Your task to perform on an android device: turn on the 24-hour format for clock Image 0: 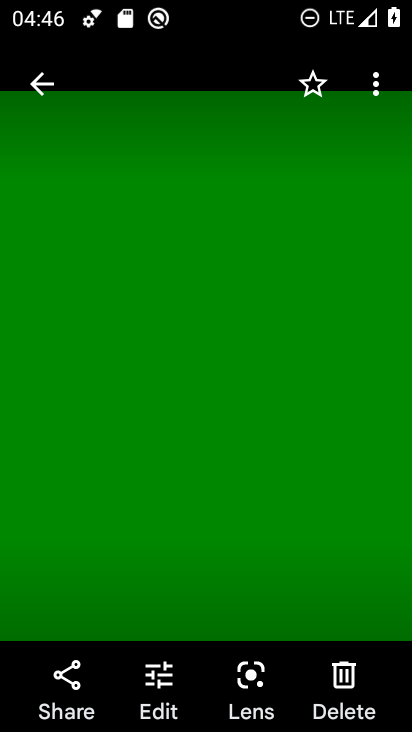
Step 0: press home button
Your task to perform on an android device: turn on the 24-hour format for clock Image 1: 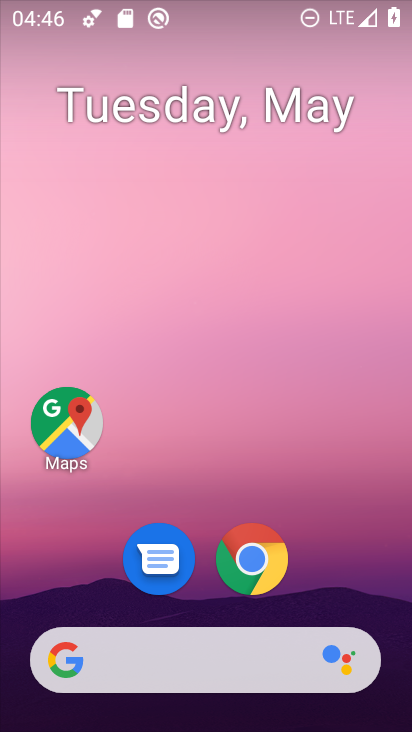
Step 1: drag from (226, 693) to (230, 115)
Your task to perform on an android device: turn on the 24-hour format for clock Image 2: 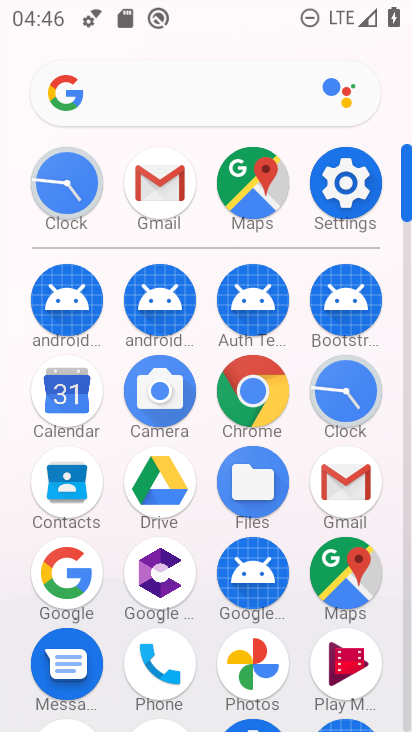
Step 2: click (347, 378)
Your task to perform on an android device: turn on the 24-hour format for clock Image 3: 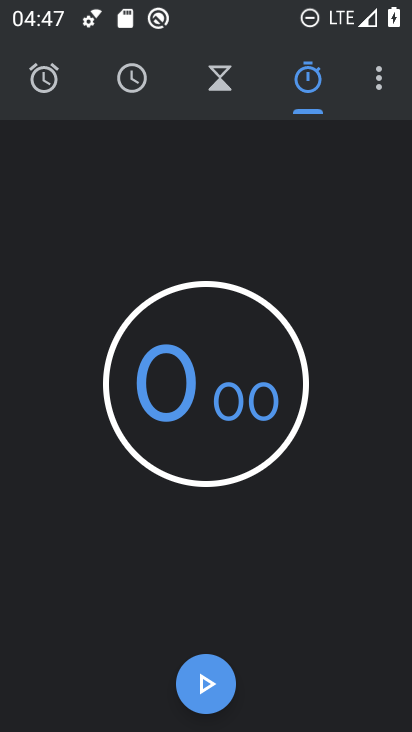
Step 3: click (381, 84)
Your task to perform on an android device: turn on the 24-hour format for clock Image 4: 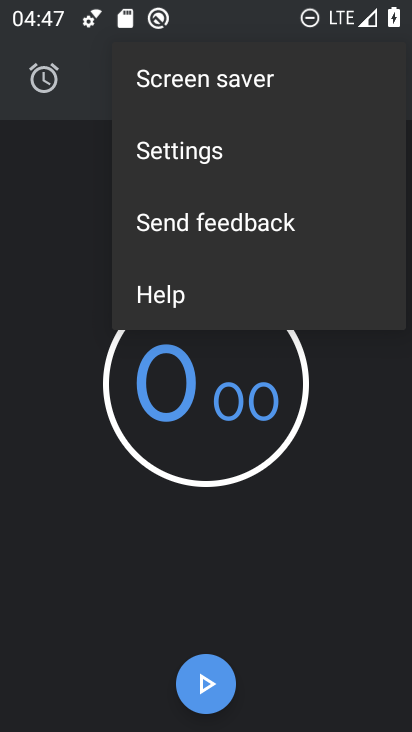
Step 4: click (201, 153)
Your task to perform on an android device: turn on the 24-hour format for clock Image 5: 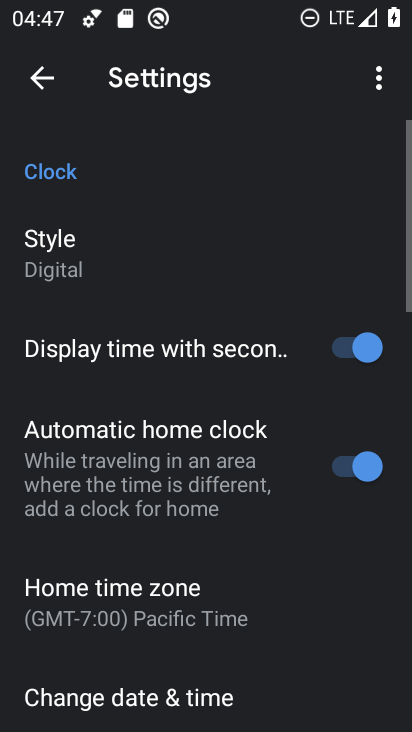
Step 5: drag from (186, 661) to (189, 421)
Your task to perform on an android device: turn on the 24-hour format for clock Image 6: 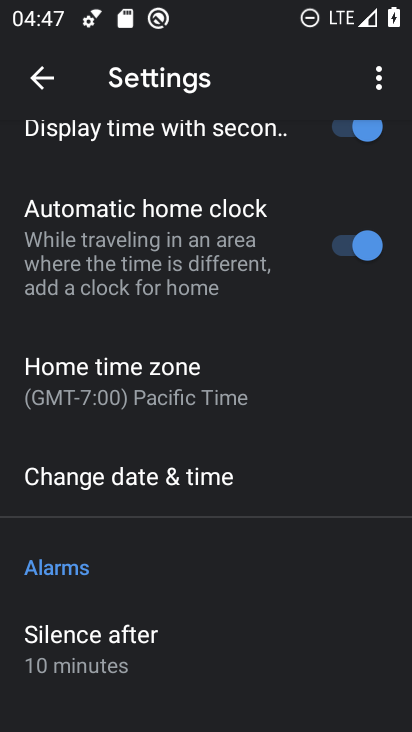
Step 6: click (170, 491)
Your task to perform on an android device: turn on the 24-hour format for clock Image 7: 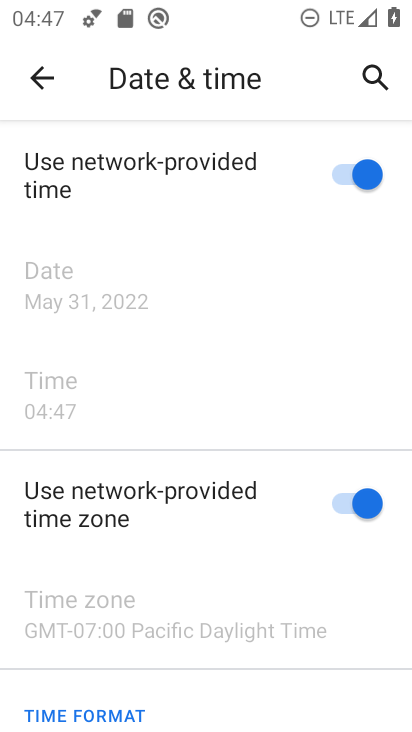
Step 7: task complete